Your task to perform on an android device: change the clock display to digital Image 0: 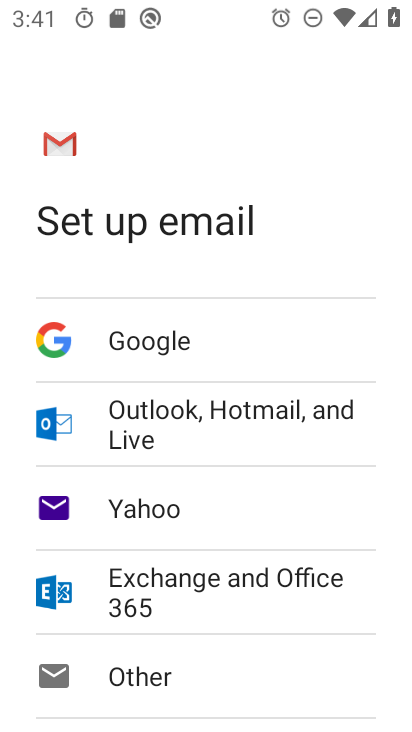
Step 0: drag from (201, 666) to (243, 296)
Your task to perform on an android device: change the clock display to digital Image 1: 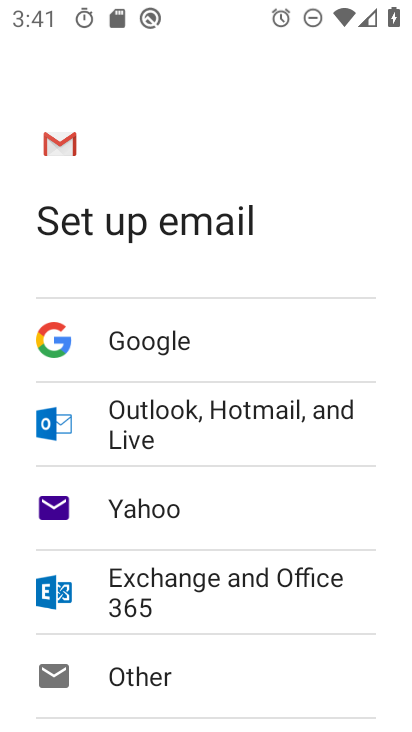
Step 1: drag from (197, 673) to (276, 286)
Your task to perform on an android device: change the clock display to digital Image 2: 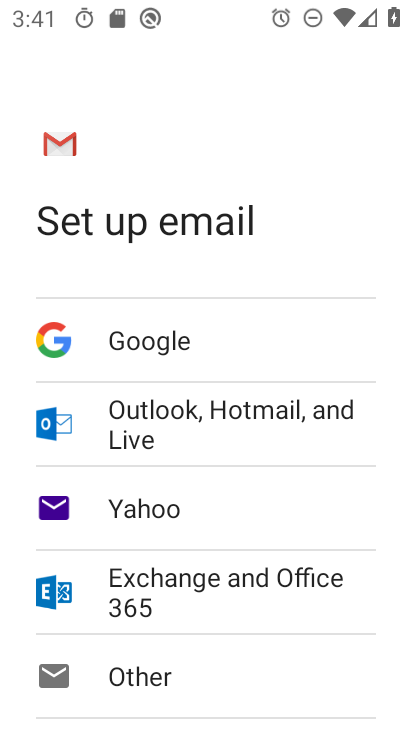
Step 2: drag from (216, 682) to (273, 328)
Your task to perform on an android device: change the clock display to digital Image 3: 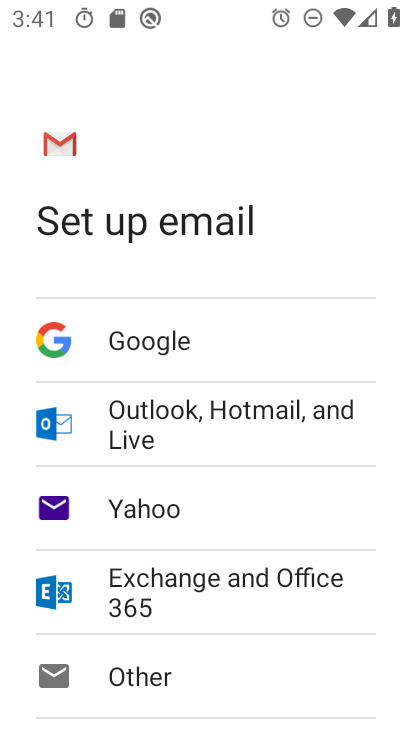
Step 3: drag from (199, 673) to (271, 366)
Your task to perform on an android device: change the clock display to digital Image 4: 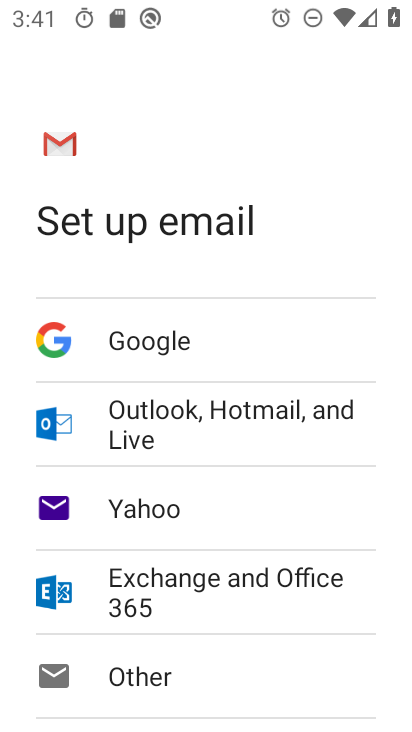
Step 4: drag from (202, 670) to (252, 252)
Your task to perform on an android device: change the clock display to digital Image 5: 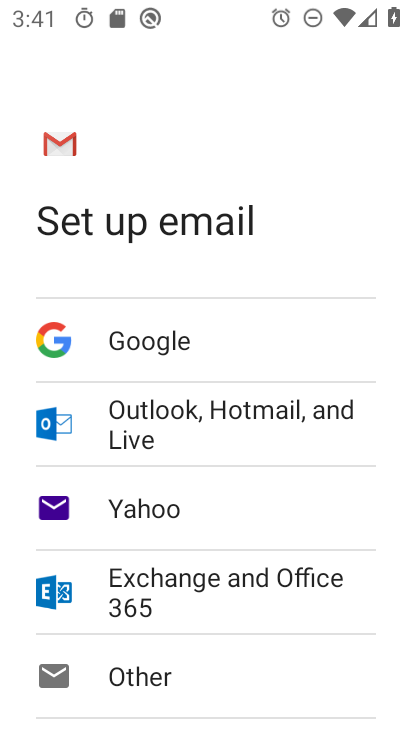
Step 5: drag from (148, 680) to (266, 249)
Your task to perform on an android device: change the clock display to digital Image 6: 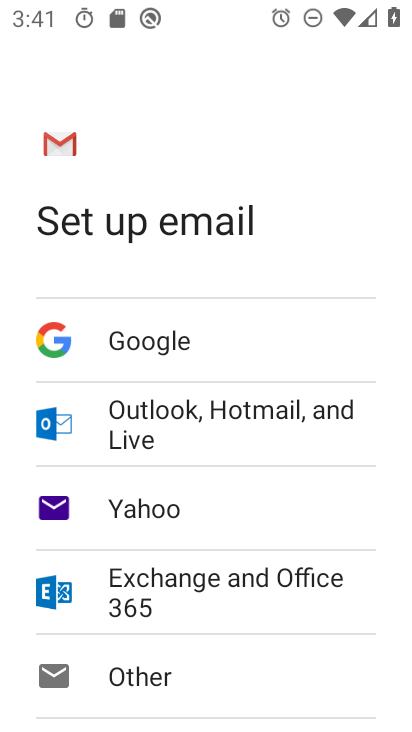
Step 6: drag from (223, 697) to (229, 322)
Your task to perform on an android device: change the clock display to digital Image 7: 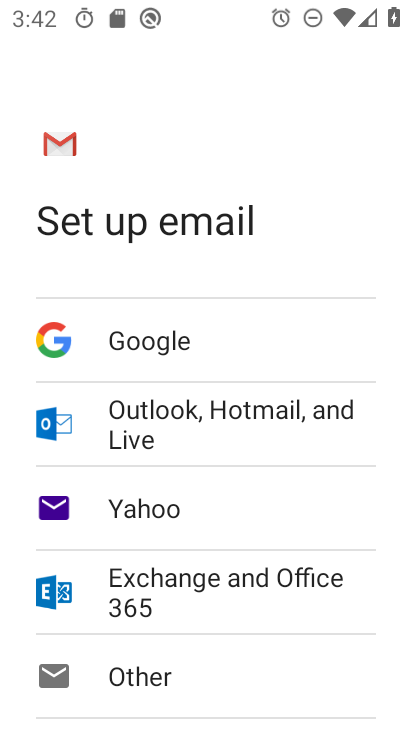
Step 7: press home button
Your task to perform on an android device: change the clock display to digital Image 8: 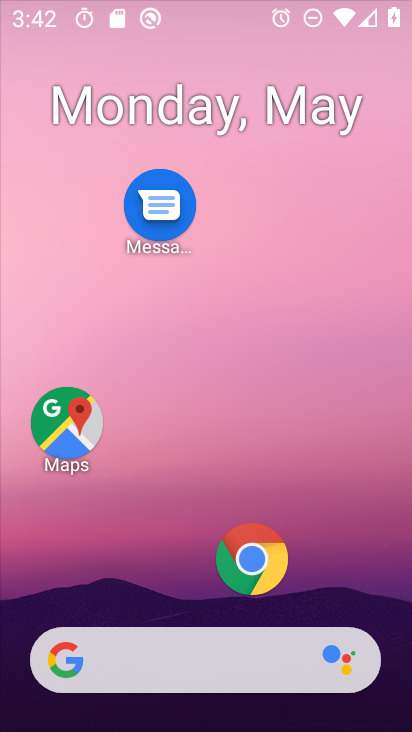
Step 8: drag from (235, 627) to (311, 174)
Your task to perform on an android device: change the clock display to digital Image 9: 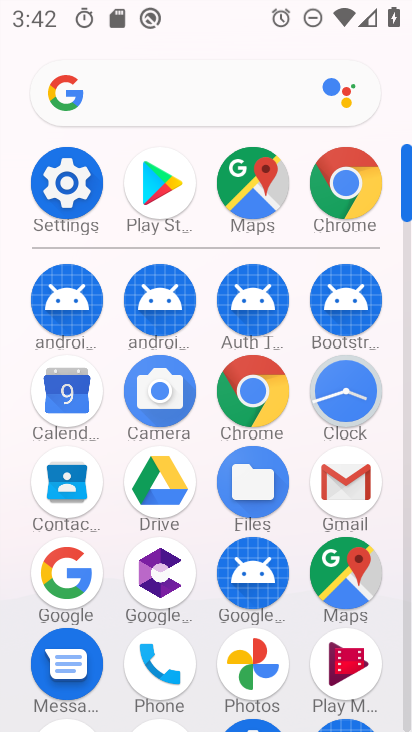
Step 9: click (334, 402)
Your task to perform on an android device: change the clock display to digital Image 10: 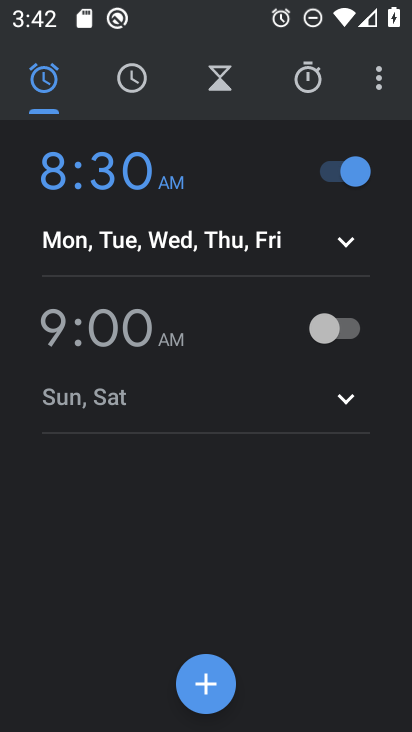
Step 10: click (397, 73)
Your task to perform on an android device: change the clock display to digital Image 11: 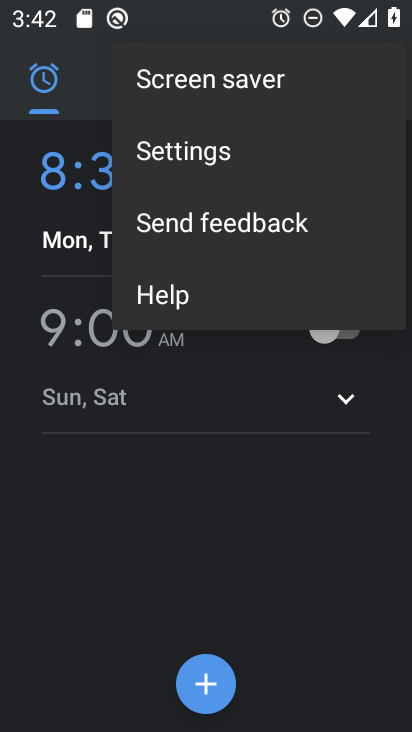
Step 11: click (221, 146)
Your task to perform on an android device: change the clock display to digital Image 12: 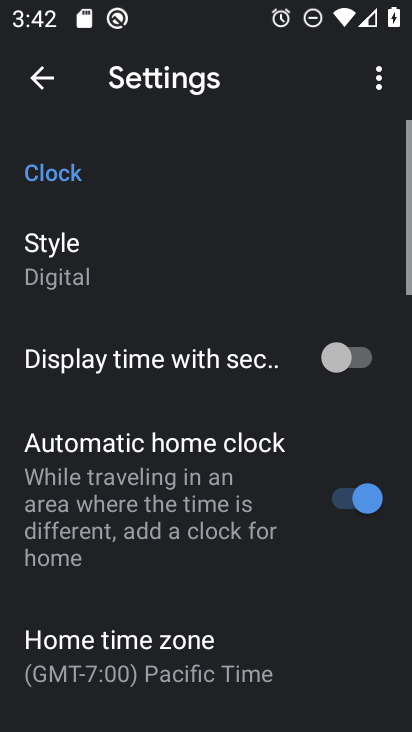
Step 12: click (103, 268)
Your task to perform on an android device: change the clock display to digital Image 13: 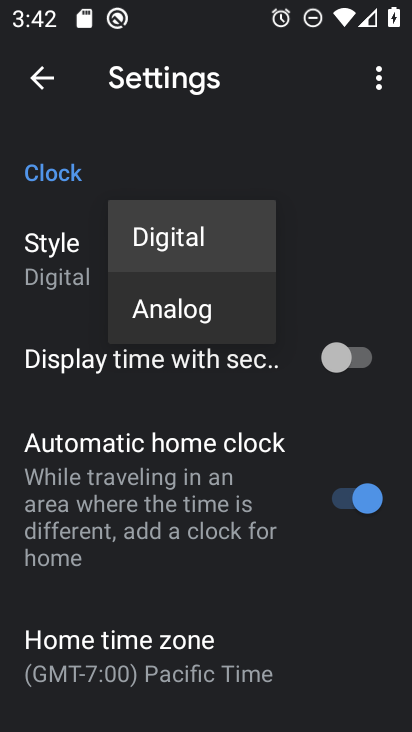
Step 13: click (226, 312)
Your task to perform on an android device: change the clock display to digital Image 14: 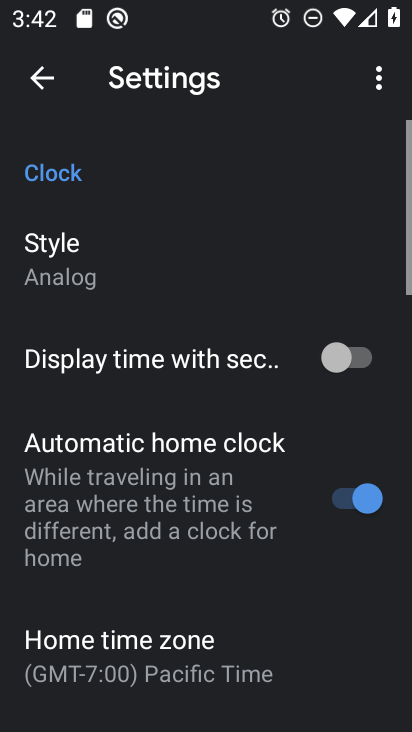
Step 14: click (103, 263)
Your task to perform on an android device: change the clock display to digital Image 15: 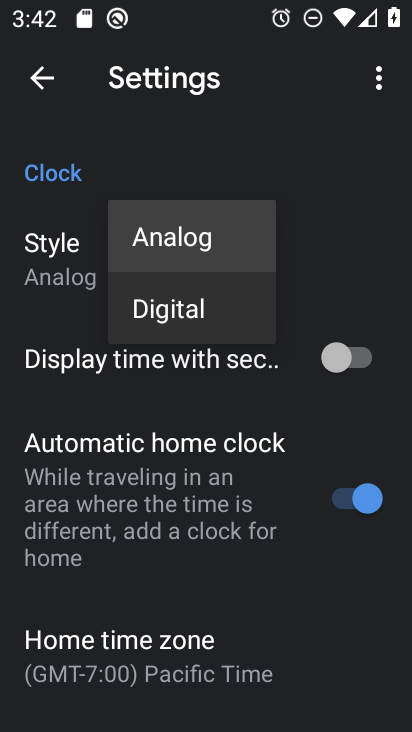
Step 15: click (173, 240)
Your task to perform on an android device: change the clock display to digital Image 16: 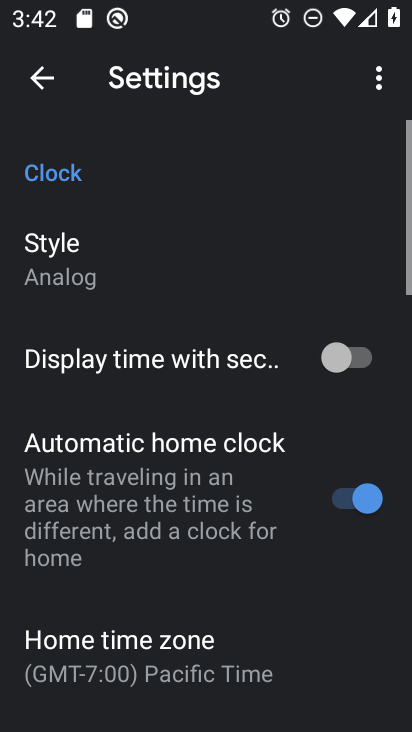
Step 16: click (79, 246)
Your task to perform on an android device: change the clock display to digital Image 17: 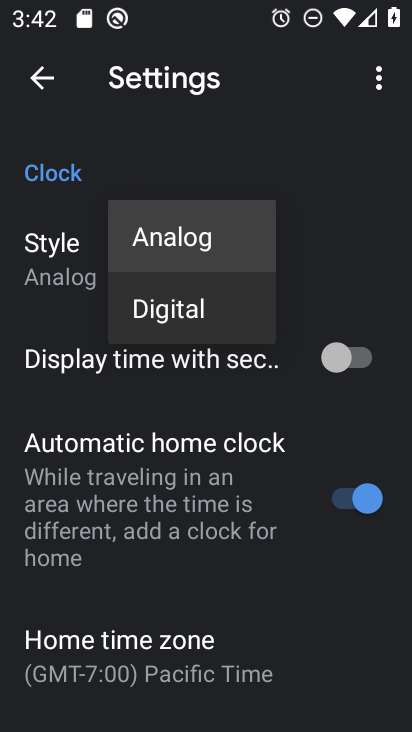
Step 17: click (173, 306)
Your task to perform on an android device: change the clock display to digital Image 18: 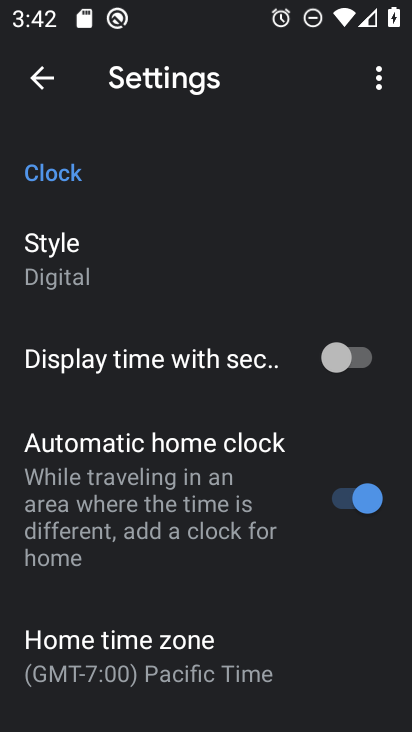
Step 18: drag from (169, 728) to (283, 213)
Your task to perform on an android device: change the clock display to digital Image 19: 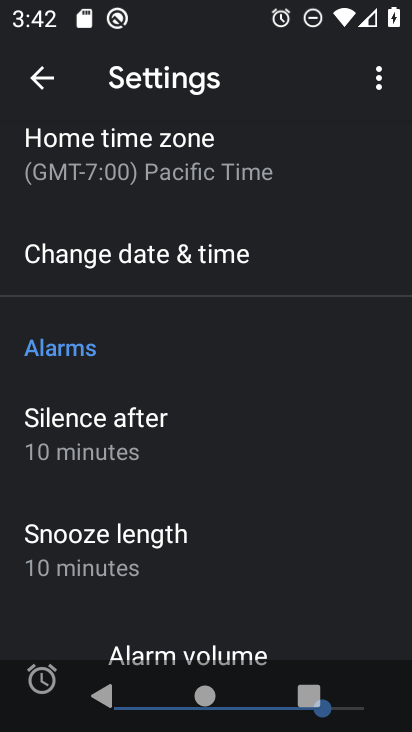
Step 19: drag from (273, 505) to (294, 285)
Your task to perform on an android device: change the clock display to digital Image 20: 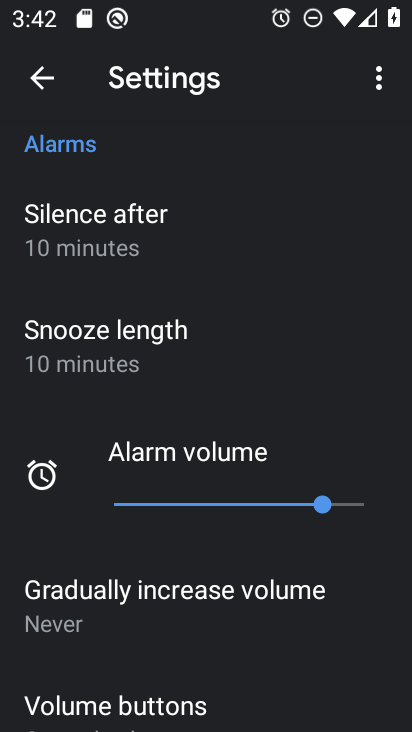
Step 20: drag from (315, 207) to (258, 725)
Your task to perform on an android device: change the clock display to digital Image 21: 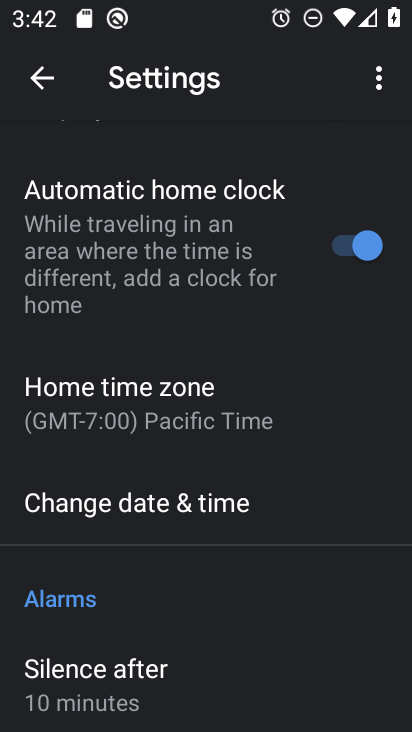
Step 21: drag from (199, 178) to (291, 615)
Your task to perform on an android device: change the clock display to digital Image 22: 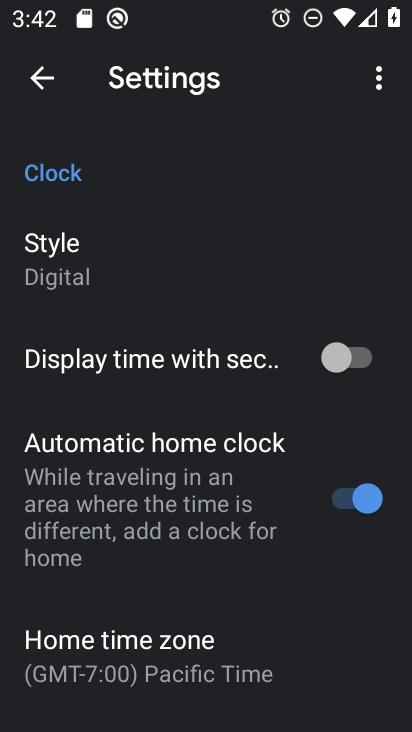
Step 22: drag from (210, 335) to (222, 727)
Your task to perform on an android device: change the clock display to digital Image 23: 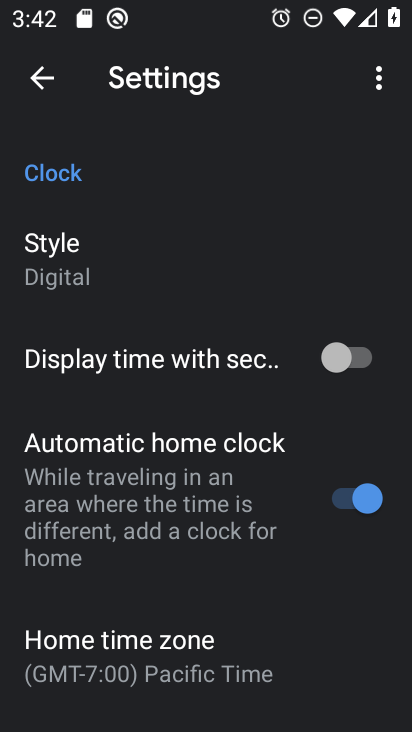
Step 23: drag from (192, 321) to (272, 658)
Your task to perform on an android device: change the clock display to digital Image 24: 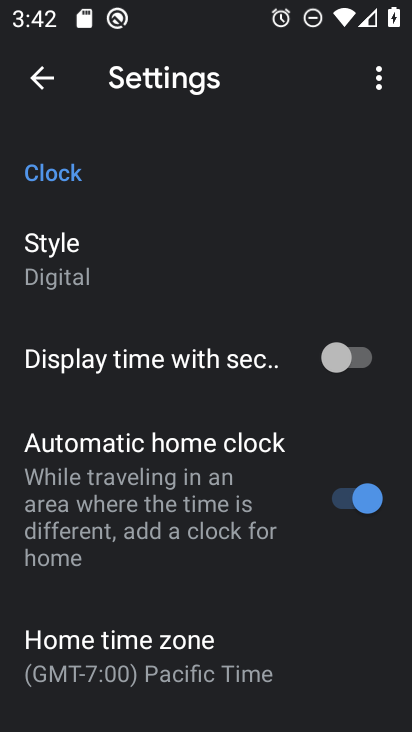
Step 24: drag from (145, 289) to (340, 726)
Your task to perform on an android device: change the clock display to digital Image 25: 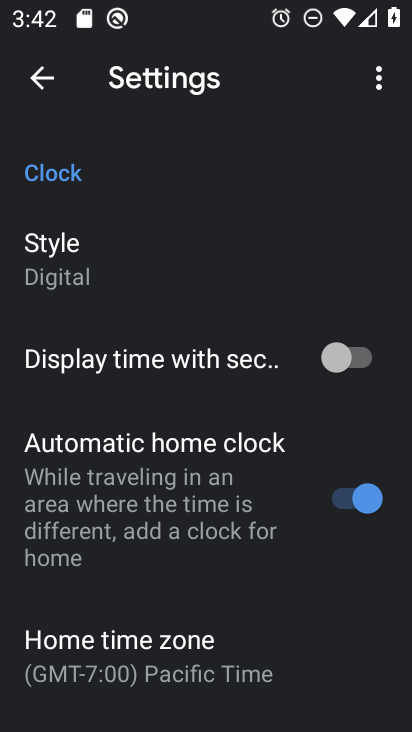
Step 25: drag from (257, 666) to (273, 280)
Your task to perform on an android device: change the clock display to digital Image 26: 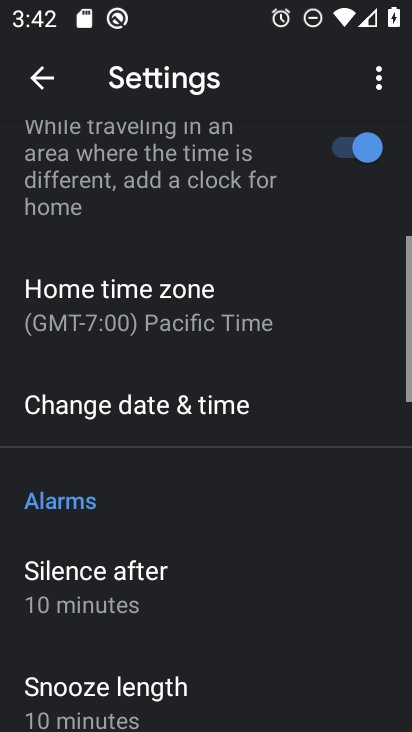
Step 26: drag from (273, 237) to (291, 725)
Your task to perform on an android device: change the clock display to digital Image 27: 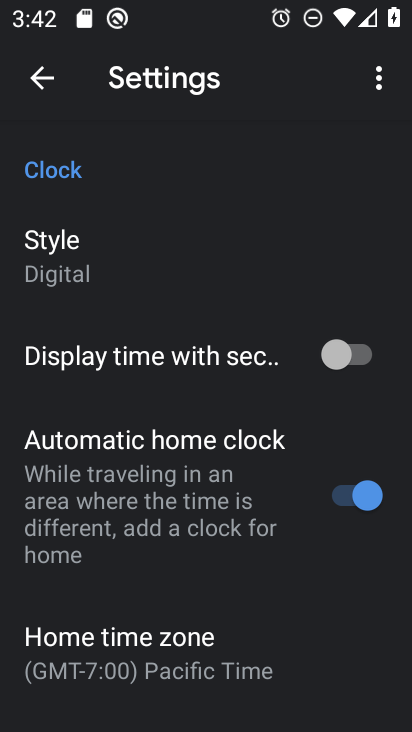
Step 27: drag from (273, 240) to (248, 582)
Your task to perform on an android device: change the clock display to digital Image 28: 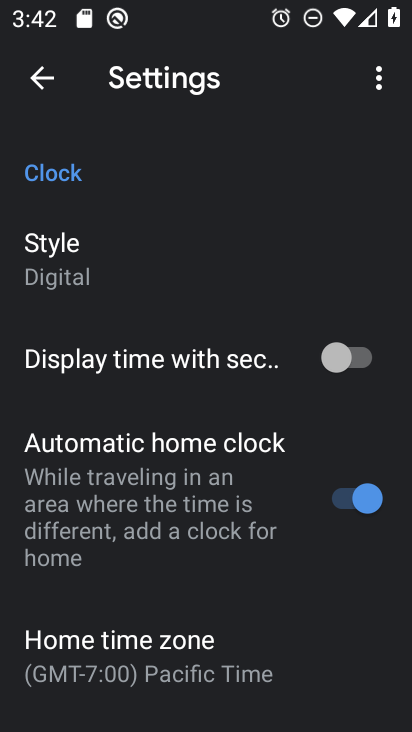
Step 28: drag from (213, 585) to (250, 281)
Your task to perform on an android device: change the clock display to digital Image 29: 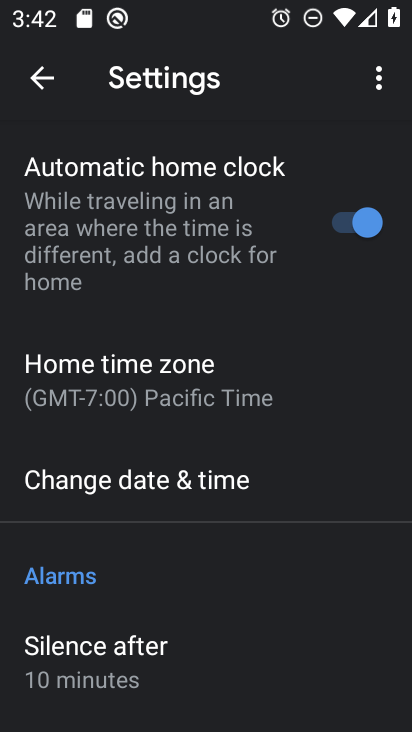
Step 29: drag from (280, 229) to (288, 729)
Your task to perform on an android device: change the clock display to digital Image 30: 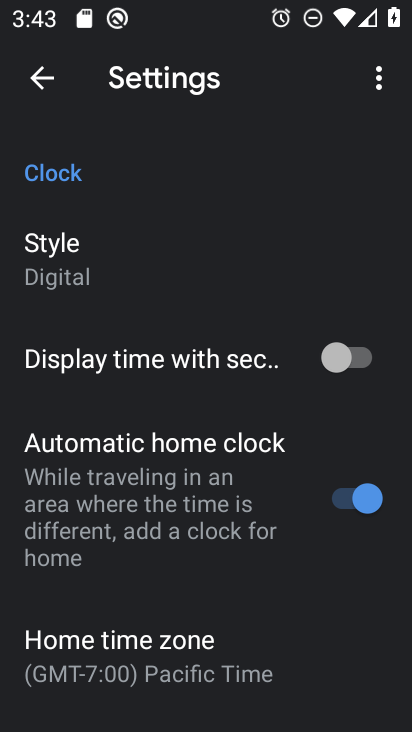
Step 30: drag from (267, 287) to (261, 667)
Your task to perform on an android device: change the clock display to digital Image 31: 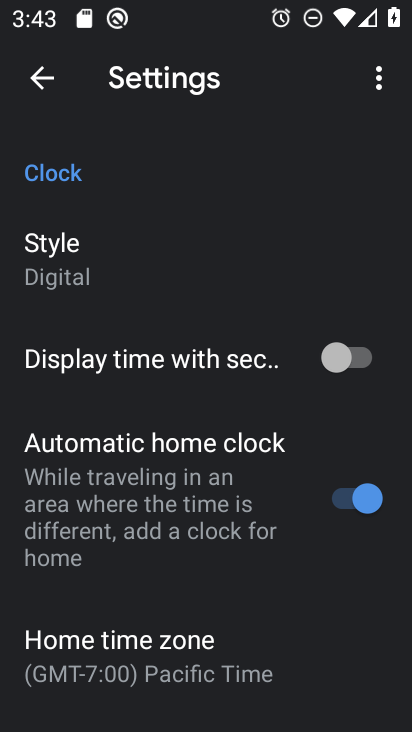
Step 31: drag from (348, 646) to (256, 280)
Your task to perform on an android device: change the clock display to digital Image 32: 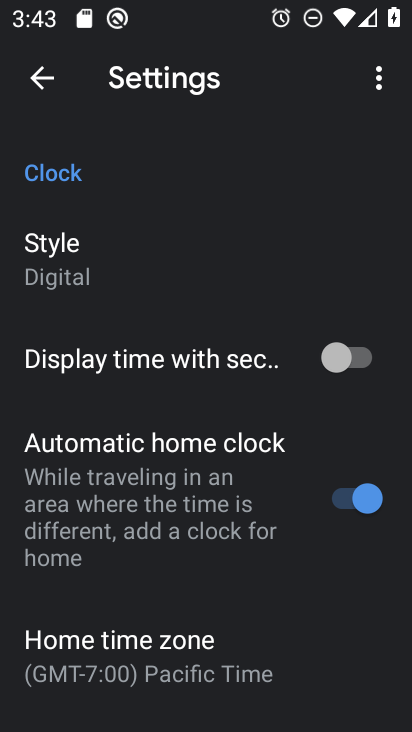
Step 32: drag from (251, 191) to (254, 591)
Your task to perform on an android device: change the clock display to digital Image 33: 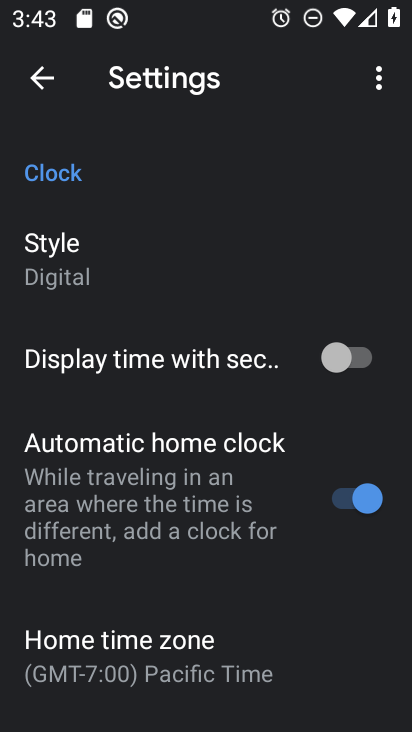
Step 33: drag from (232, 639) to (241, 258)
Your task to perform on an android device: change the clock display to digital Image 34: 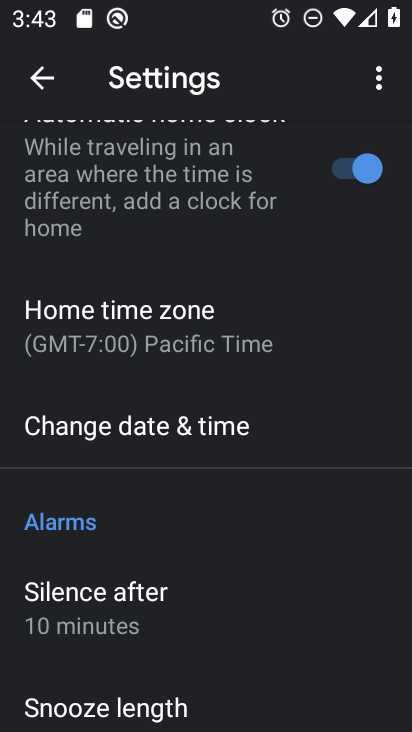
Step 34: drag from (280, 238) to (309, 722)
Your task to perform on an android device: change the clock display to digital Image 35: 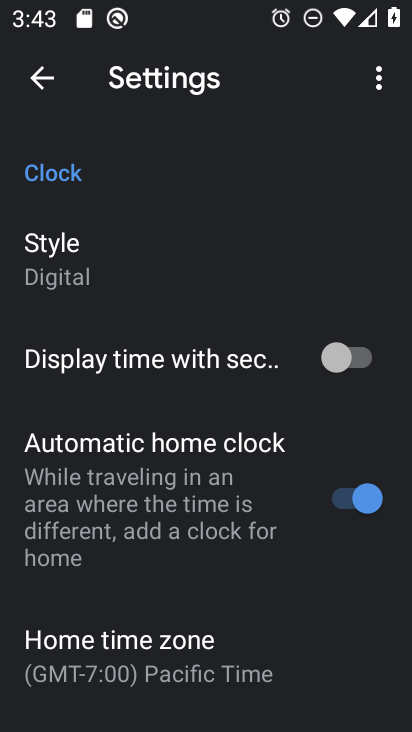
Step 35: click (186, 256)
Your task to perform on an android device: change the clock display to digital Image 36: 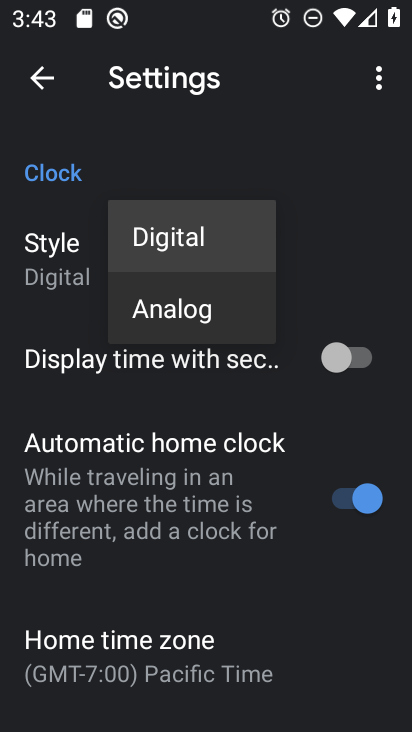
Step 36: click (157, 247)
Your task to perform on an android device: change the clock display to digital Image 37: 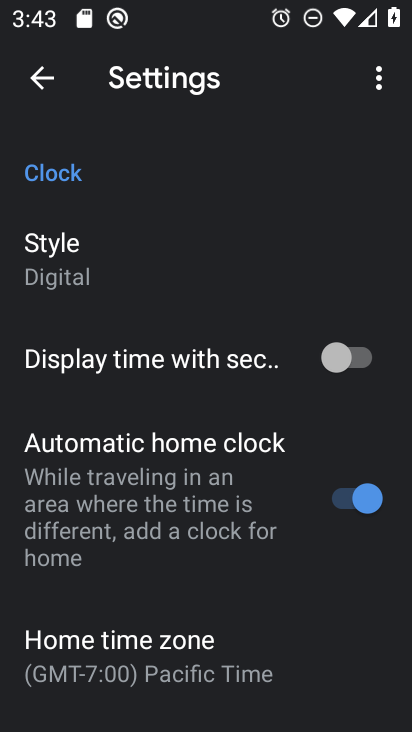
Step 37: task complete